Your task to perform on an android device: Open location settings Image 0: 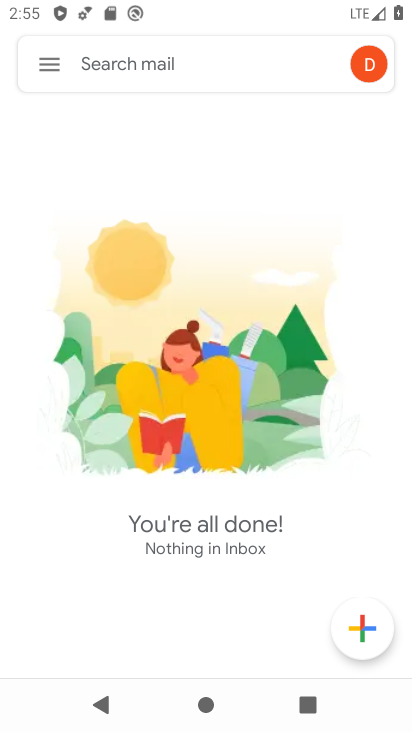
Step 0: press home button
Your task to perform on an android device: Open location settings Image 1: 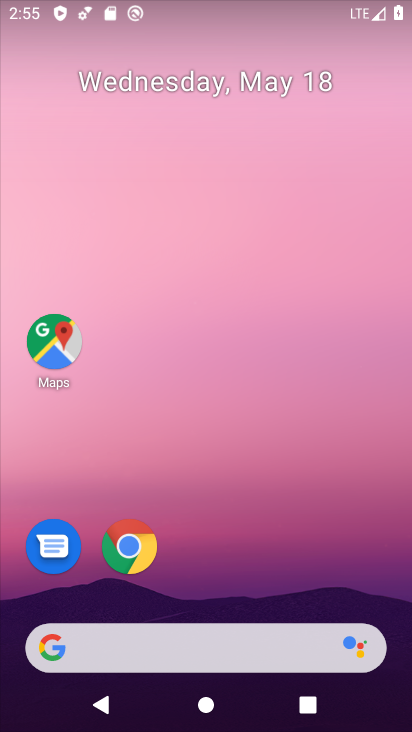
Step 1: drag from (234, 720) to (236, 232)
Your task to perform on an android device: Open location settings Image 2: 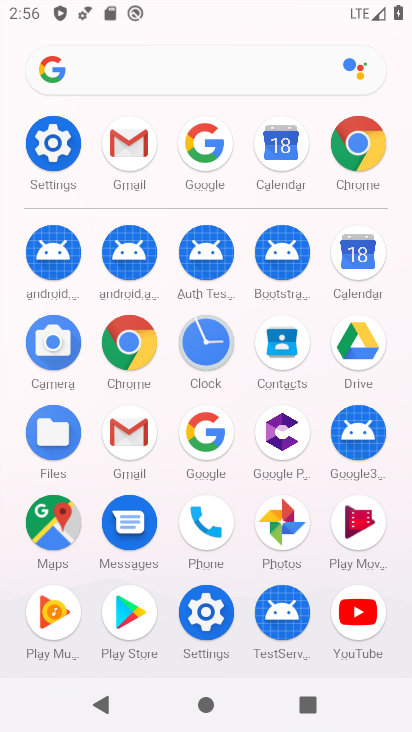
Step 2: click (53, 137)
Your task to perform on an android device: Open location settings Image 3: 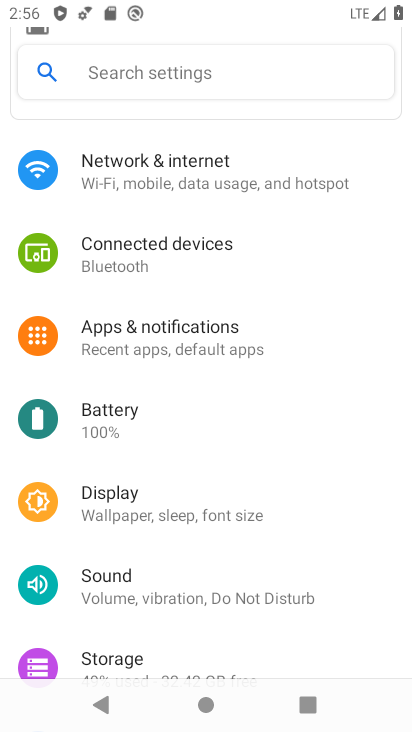
Step 3: drag from (139, 501) to (150, 224)
Your task to perform on an android device: Open location settings Image 4: 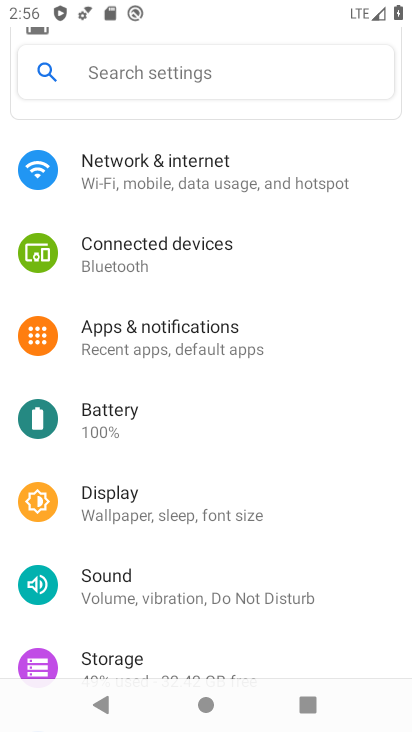
Step 4: drag from (155, 522) to (145, 182)
Your task to perform on an android device: Open location settings Image 5: 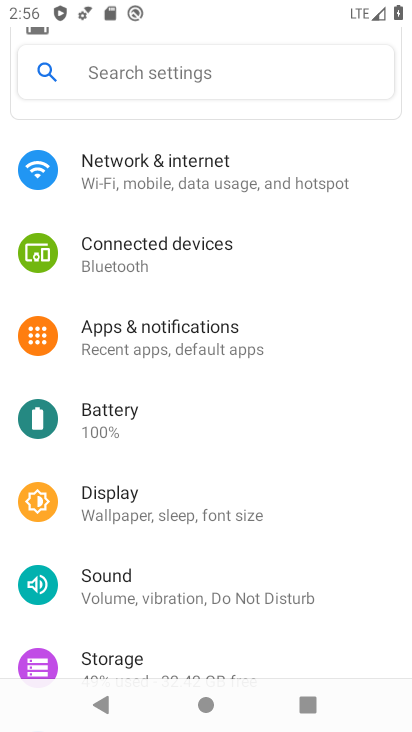
Step 5: drag from (144, 488) to (140, 231)
Your task to perform on an android device: Open location settings Image 6: 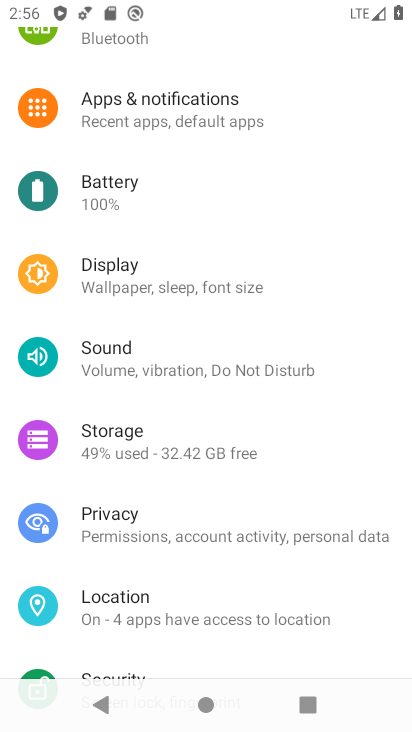
Step 6: click (115, 596)
Your task to perform on an android device: Open location settings Image 7: 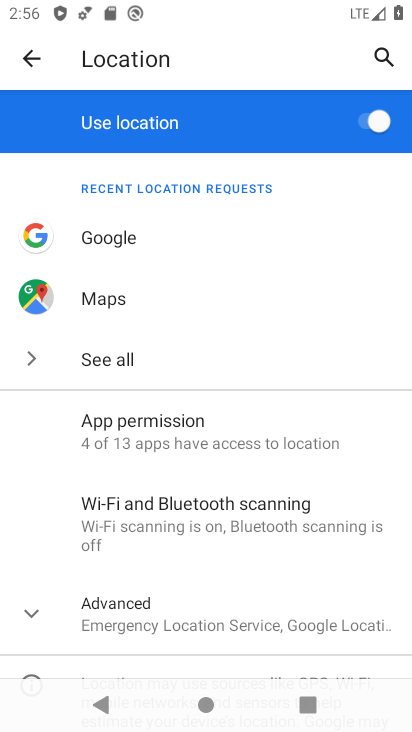
Step 7: drag from (177, 606) to (186, 295)
Your task to perform on an android device: Open location settings Image 8: 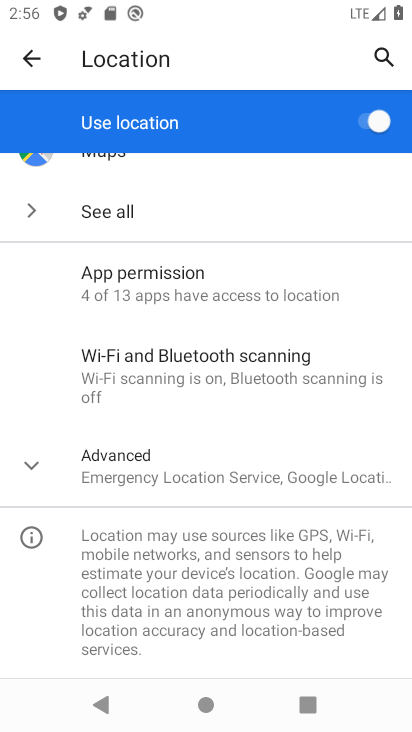
Step 8: click (171, 475)
Your task to perform on an android device: Open location settings Image 9: 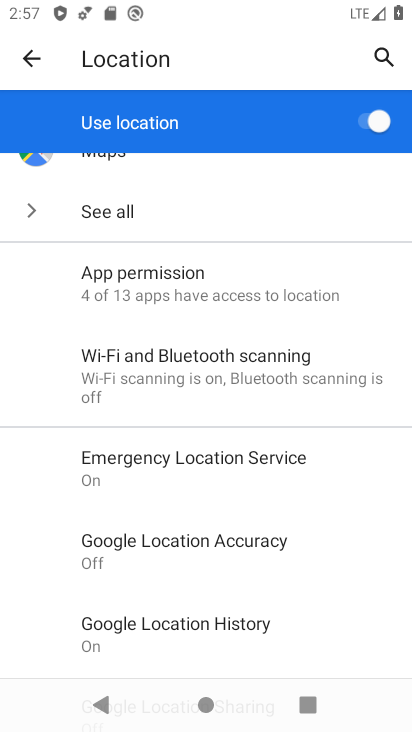
Step 9: task complete